Your task to perform on an android device: check storage Image 0: 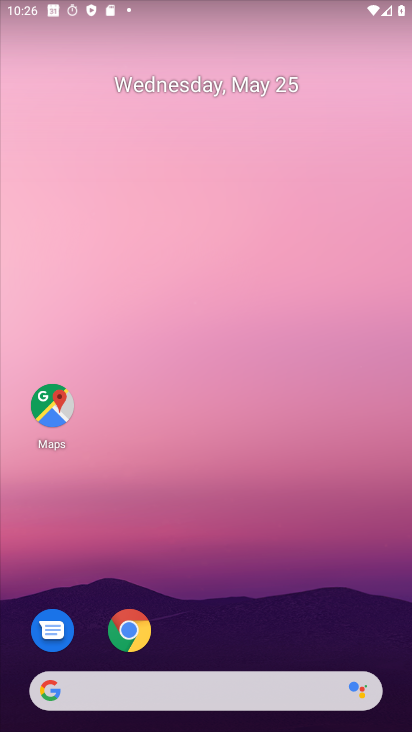
Step 0: drag from (396, 666) to (394, 262)
Your task to perform on an android device: check storage Image 1: 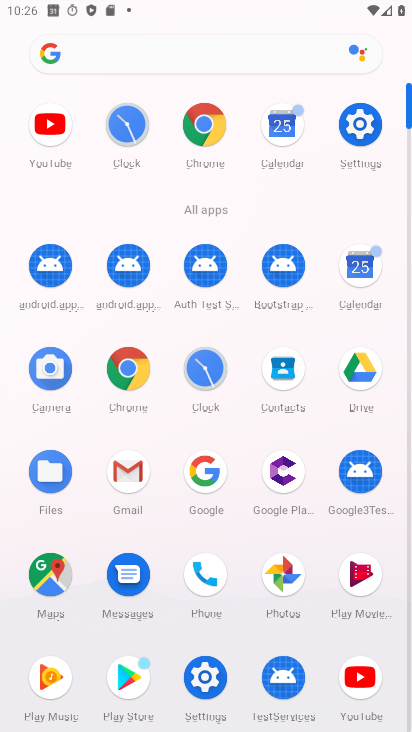
Step 1: click (370, 130)
Your task to perform on an android device: check storage Image 2: 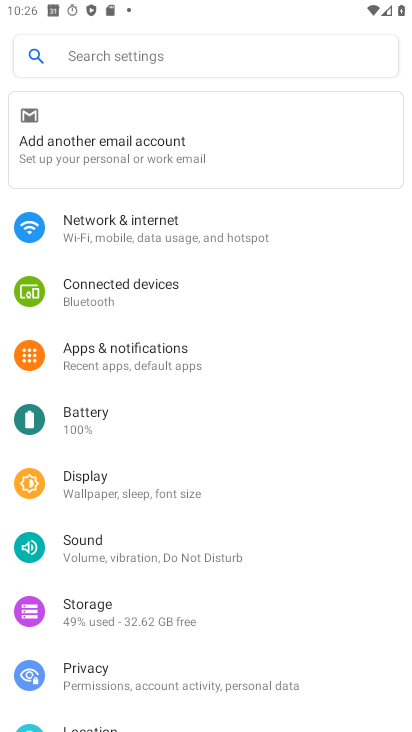
Step 2: drag from (319, 691) to (327, 330)
Your task to perform on an android device: check storage Image 3: 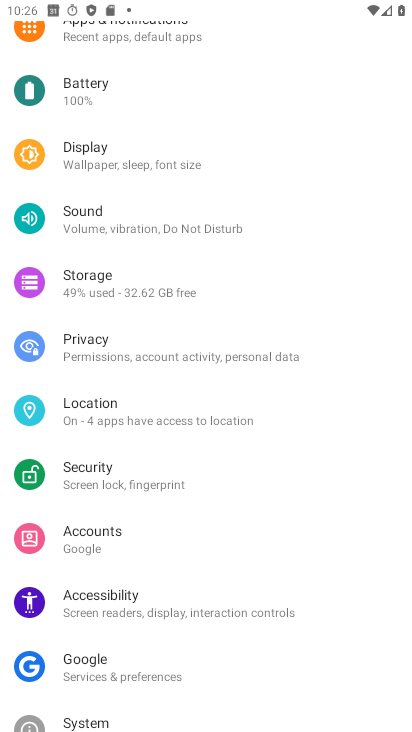
Step 3: click (98, 281)
Your task to perform on an android device: check storage Image 4: 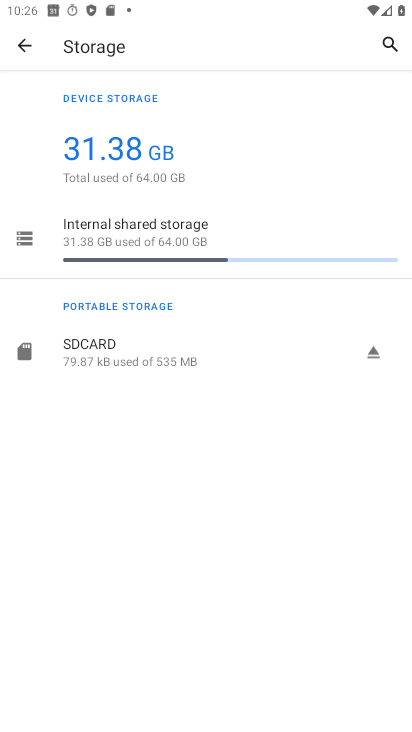
Step 4: task complete